Your task to perform on an android device: change your default location settings in chrome Image 0: 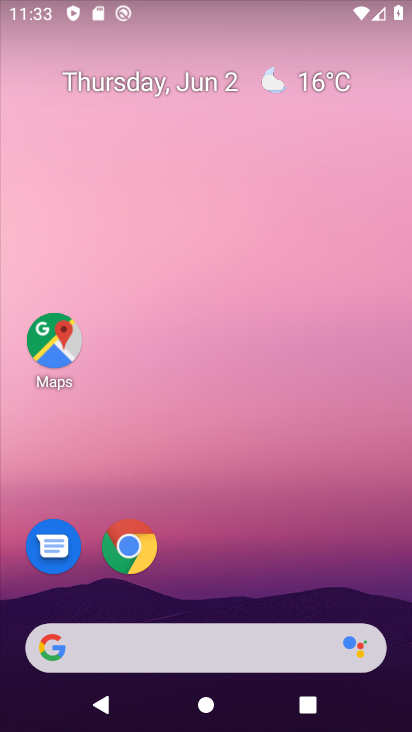
Step 0: click (127, 548)
Your task to perform on an android device: change your default location settings in chrome Image 1: 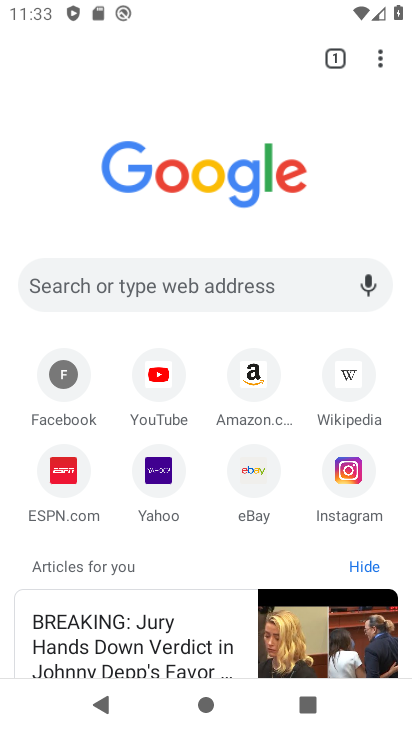
Step 1: click (382, 56)
Your task to perform on an android device: change your default location settings in chrome Image 2: 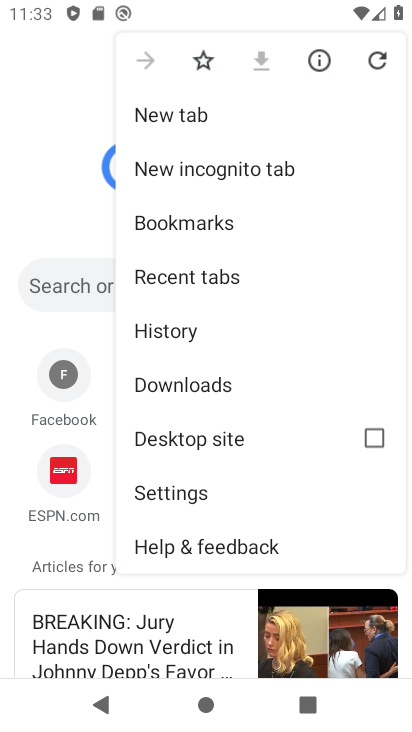
Step 2: click (176, 491)
Your task to perform on an android device: change your default location settings in chrome Image 3: 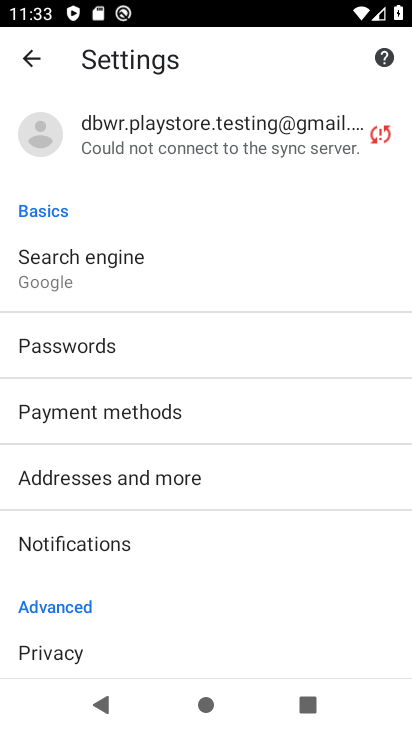
Step 3: drag from (205, 602) to (168, 299)
Your task to perform on an android device: change your default location settings in chrome Image 4: 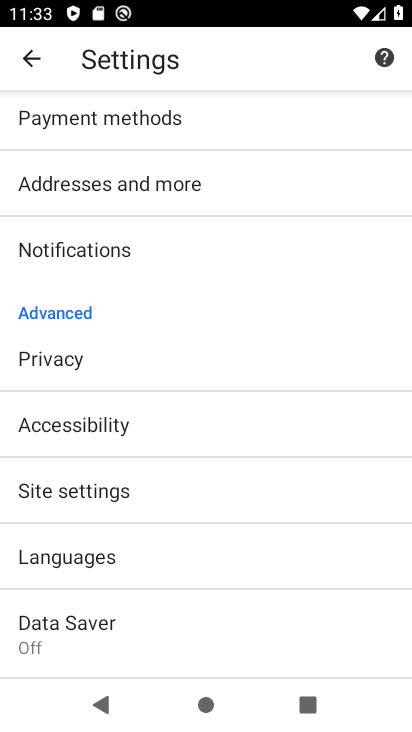
Step 4: click (86, 488)
Your task to perform on an android device: change your default location settings in chrome Image 5: 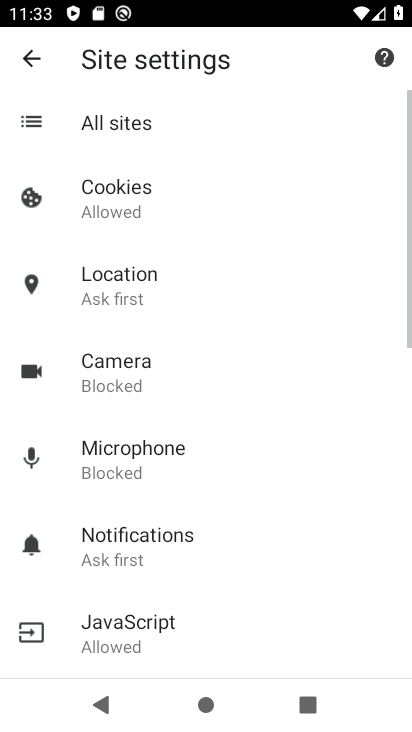
Step 5: click (135, 275)
Your task to perform on an android device: change your default location settings in chrome Image 6: 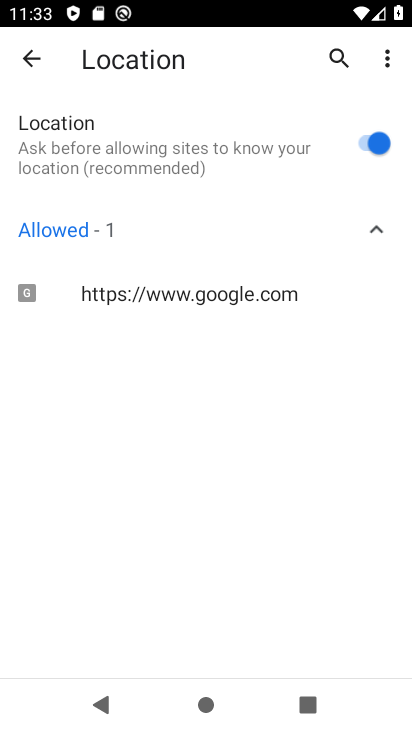
Step 6: click (369, 147)
Your task to perform on an android device: change your default location settings in chrome Image 7: 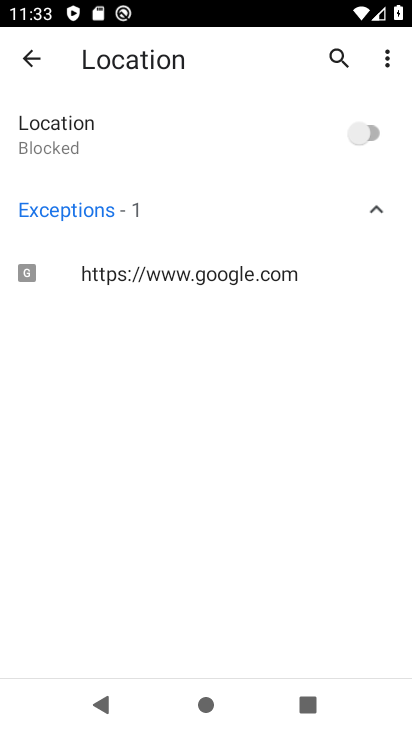
Step 7: task complete